Your task to perform on an android device: Go to Google Image 0: 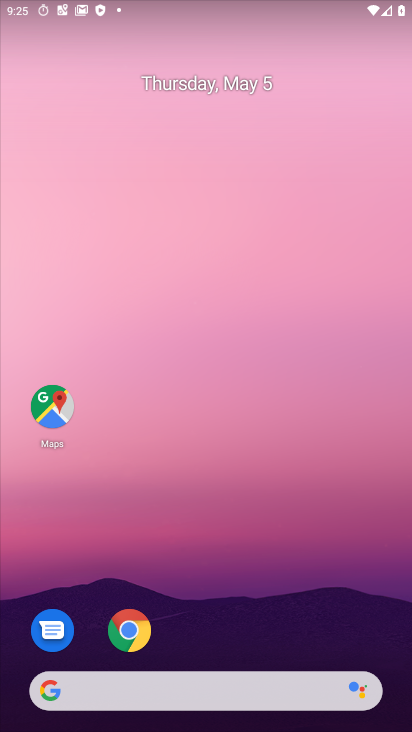
Step 0: drag from (250, 600) to (139, 222)
Your task to perform on an android device: Go to Google Image 1: 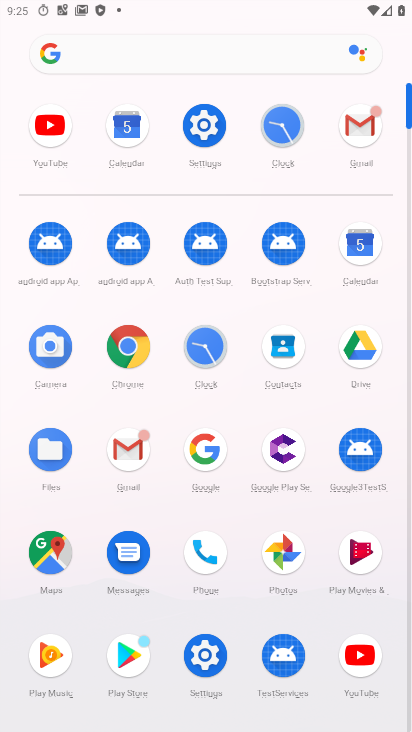
Step 1: click (211, 451)
Your task to perform on an android device: Go to Google Image 2: 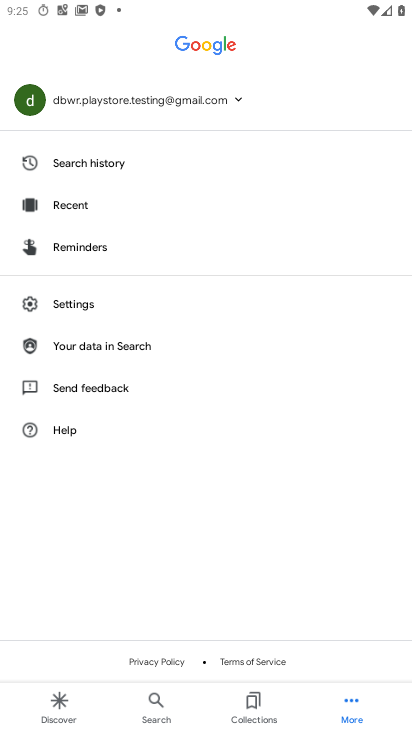
Step 2: task complete